Your task to perform on an android device: Open CNN.com Image 0: 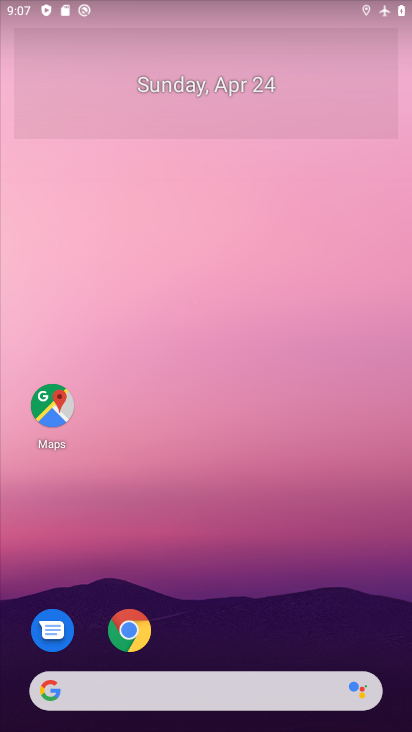
Step 0: click (132, 626)
Your task to perform on an android device: Open CNN.com Image 1: 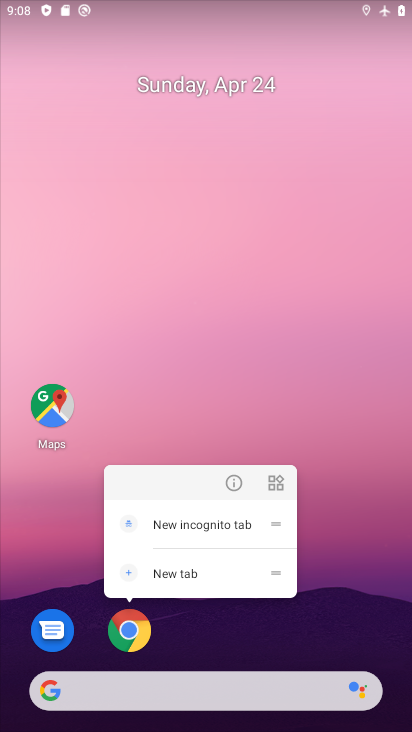
Step 1: click (231, 471)
Your task to perform on an android device: Open CNN.com Image 2: 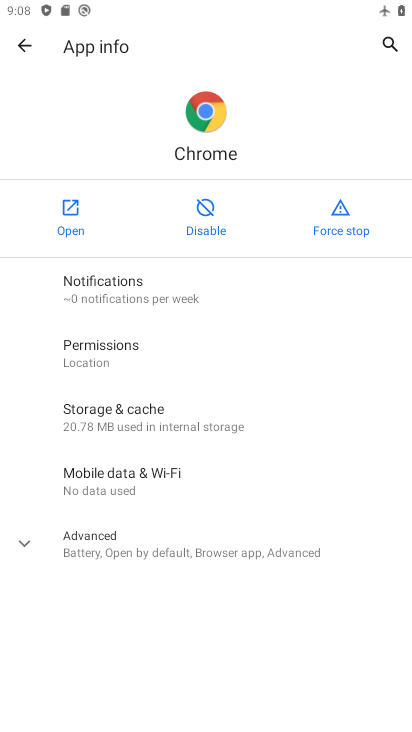
Step 2: click (70, 224)
Your task to perform on an android device: Open CNN.com Image 3: 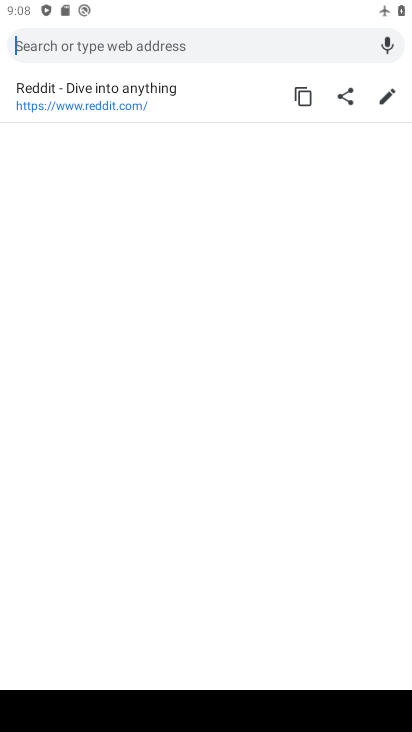
Step 3: click (101, 47)
Your task to perform on an android device: Open CNN.com Image 4: 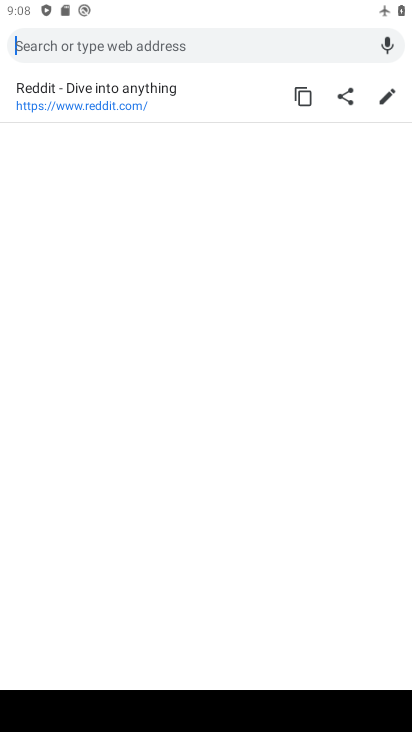
Step 4: type "CNN.com"
Your task to perform on an android device: Open CNN.com Image 5: 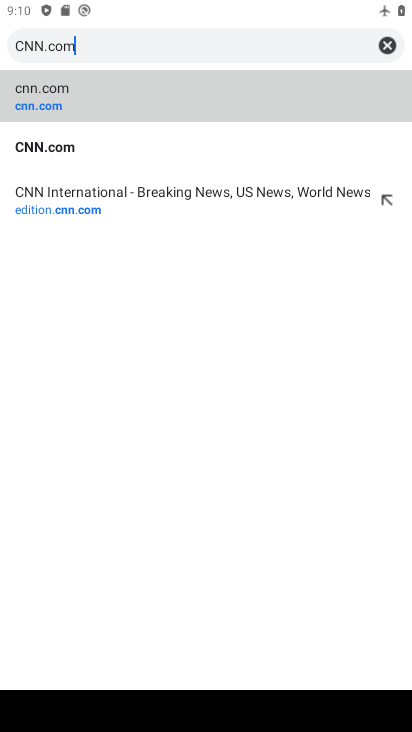
Step 5: click (70, 107)
Your task to perform on an android device: Open CNN.com Image 6: 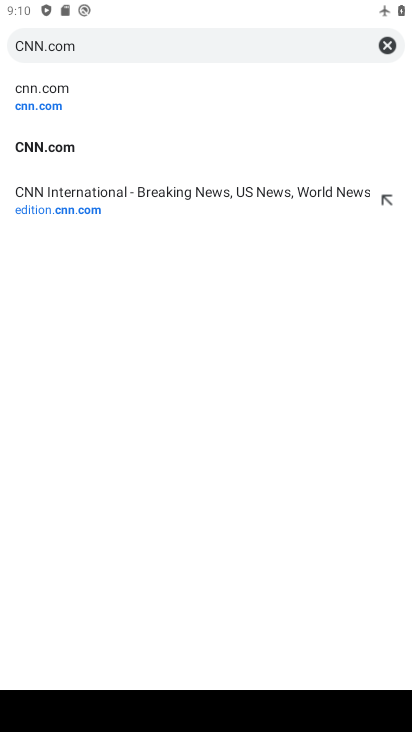
Step 6: task complete